Your task to perform on an android device: Open eBay Image 0: 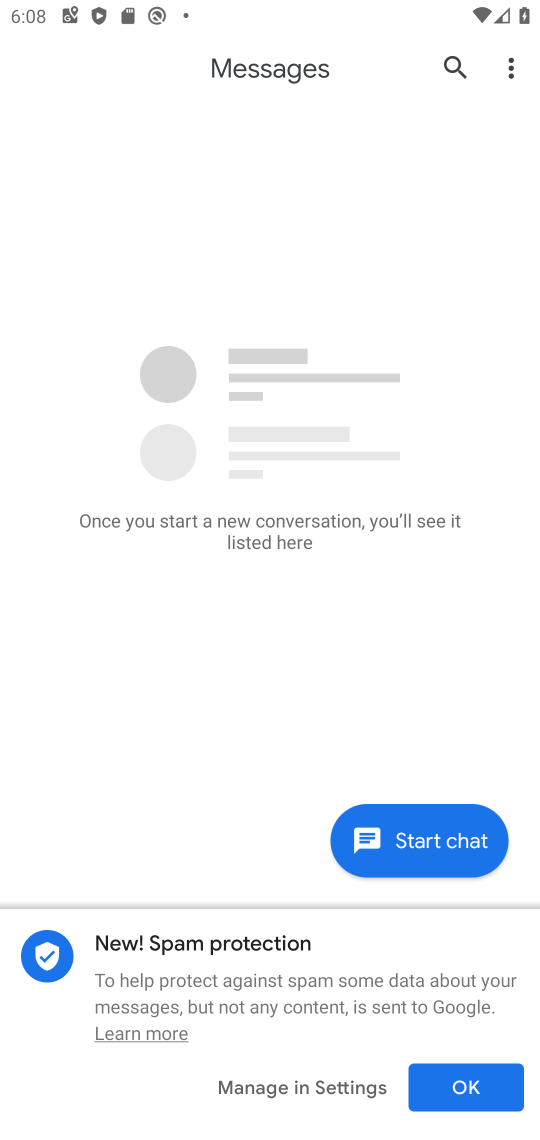
Step 0: press home button
Your task to perform on an android device: Open eBay Image 1: 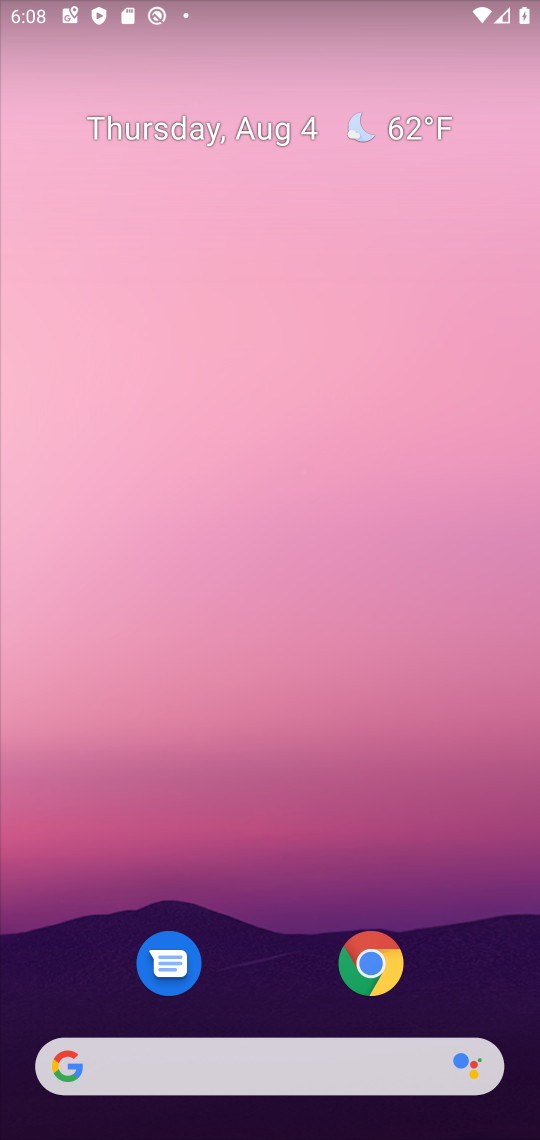
Step 1: click (374, 967)
Your task to perform on an android device: Open eBay Image 2: 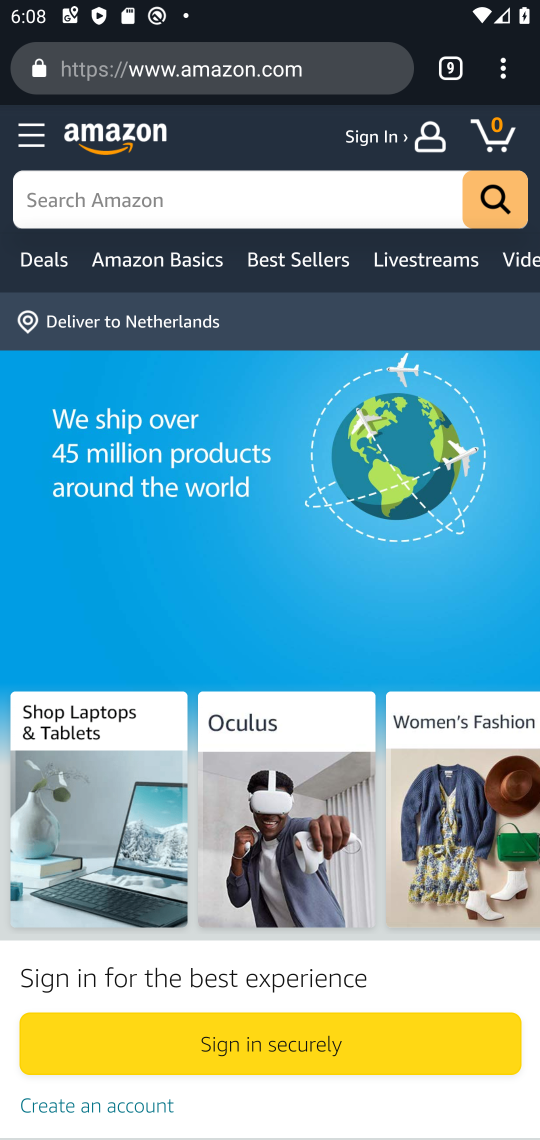
Step 2: click (510, 79)
Your task to perform on an android device: Open eBay Image 3: 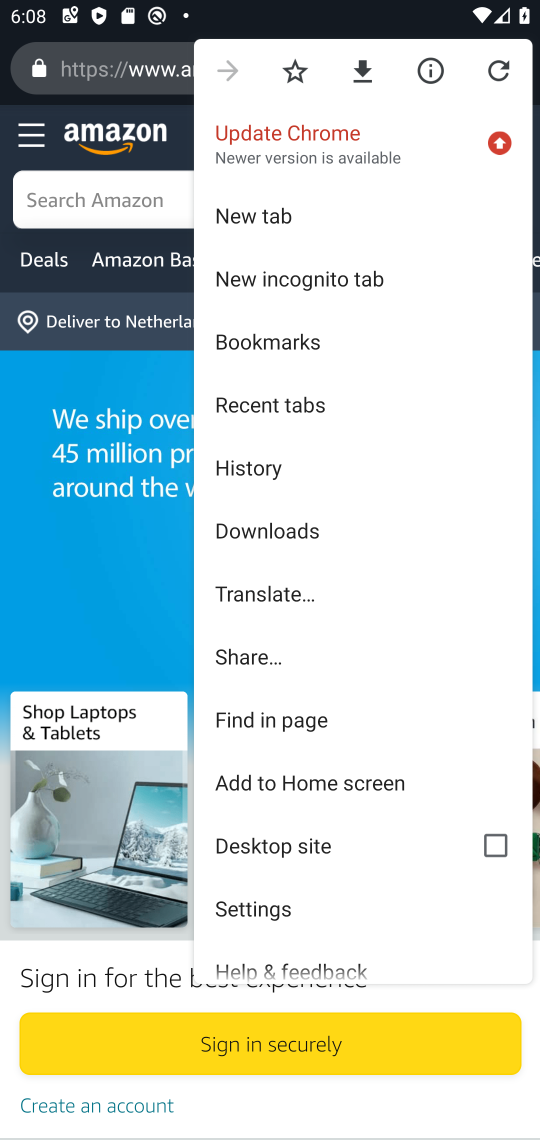
Step 3: click (251, 208)
Your task to perform on an android device: Open eBay Image 4: 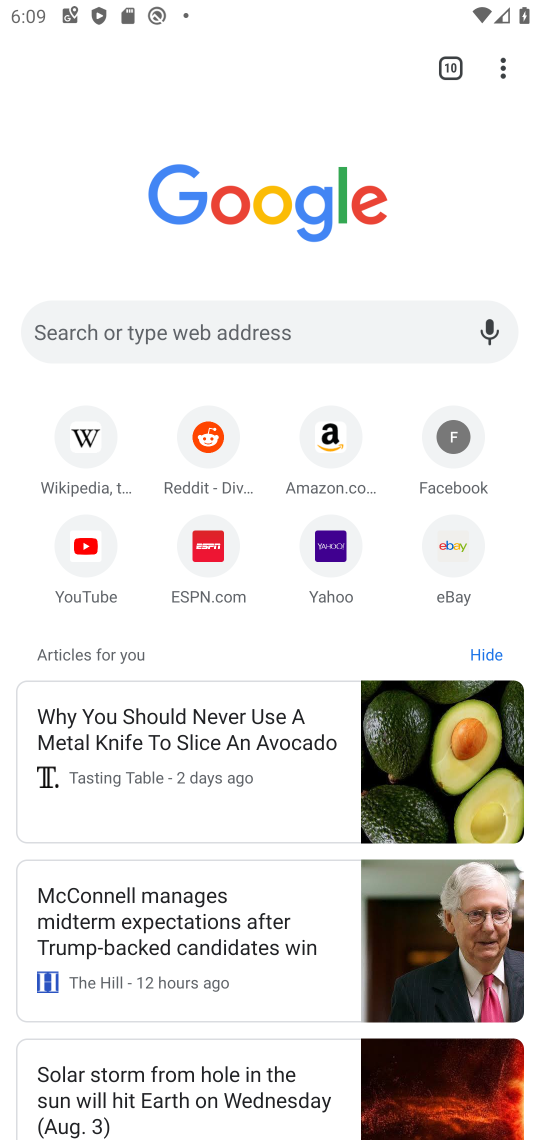
Step 4: click (443, 546)
Your task to perform on an android device: Open eBay Image 5: 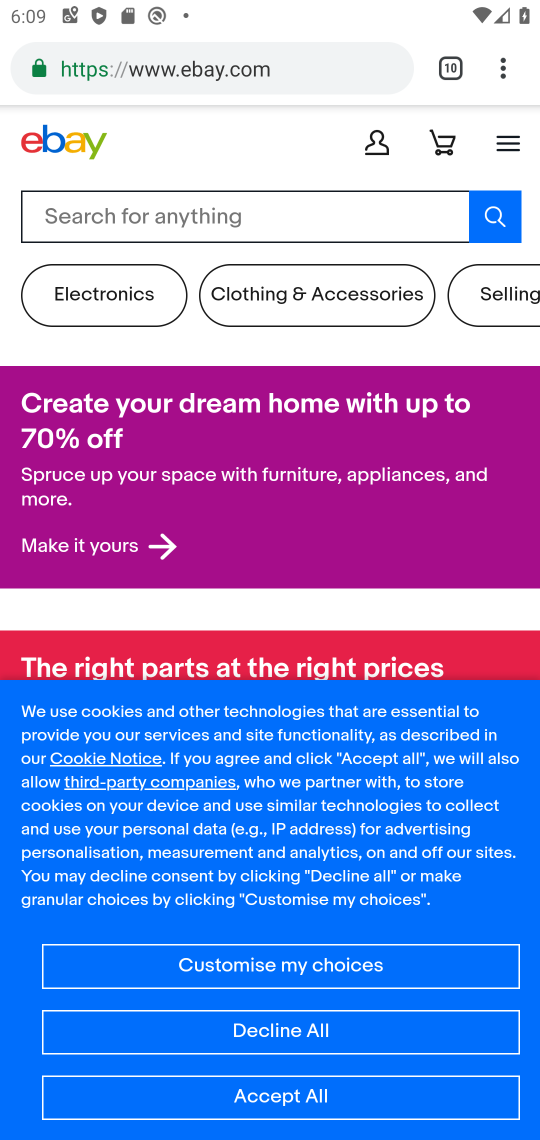
Step 5: task complete